Your task to perform on an android device: Check the settings for the Facebook app Image 0: 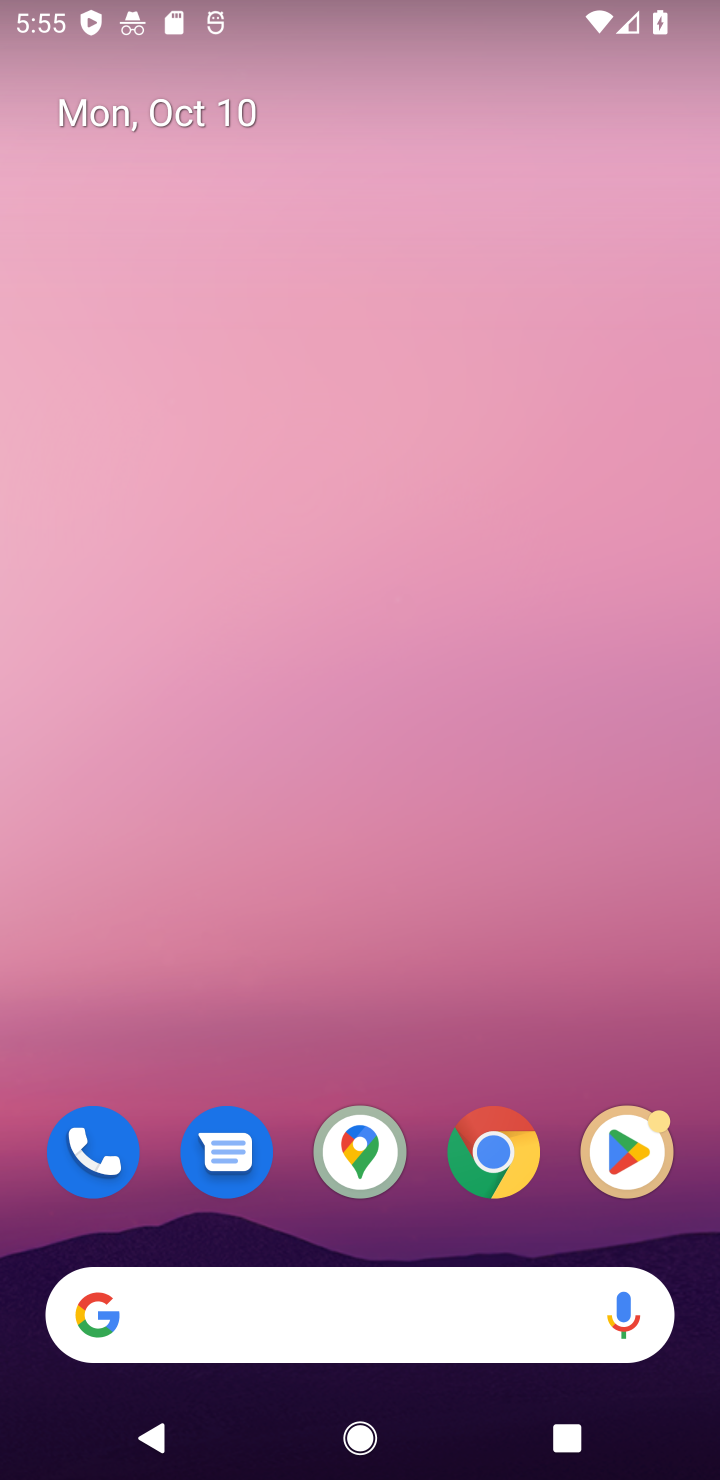
Step 0: click (624, 1152)
Your task to perform on an android device: Check the settings for the Facebook app Image 1: 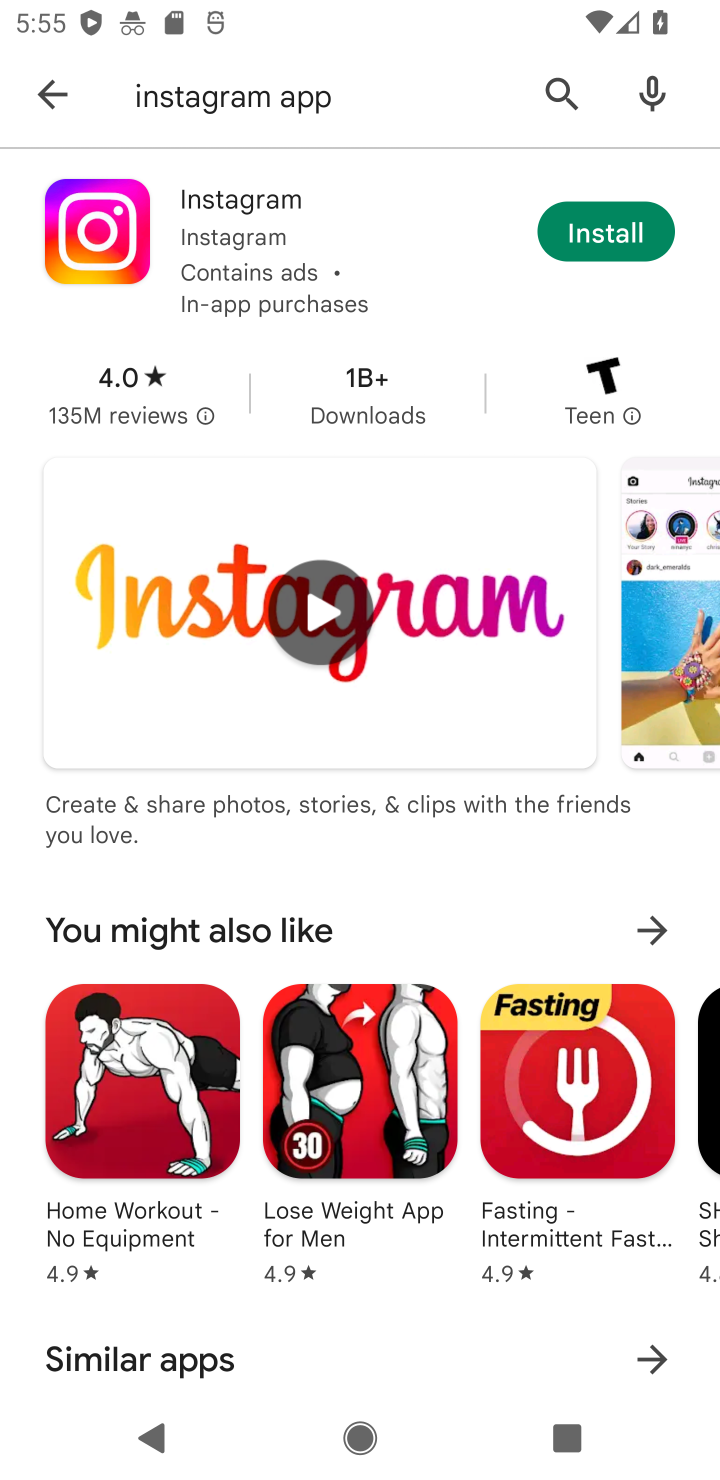
Step 1: click (568, 89)
Your task to perform on an android device: Check the settings for the Facebook app Image 2: 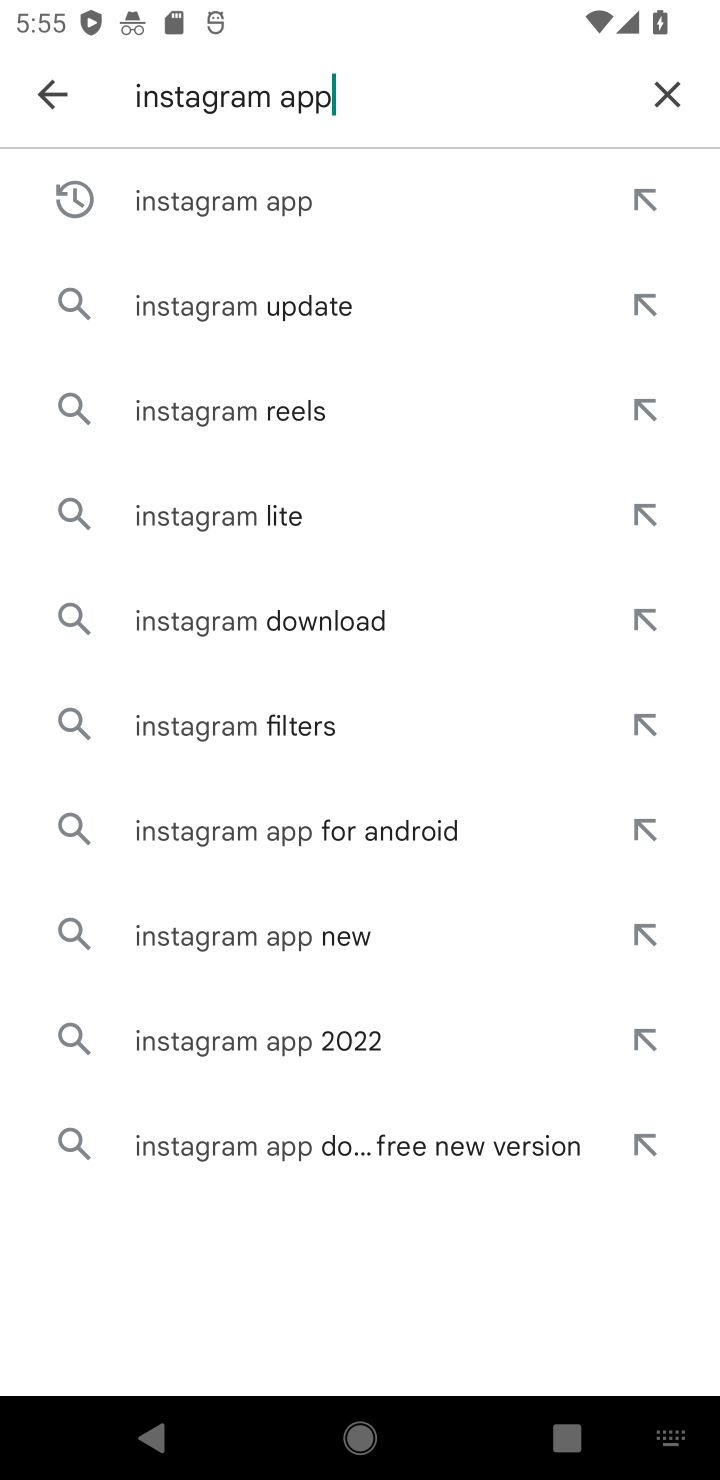
Step 2: click (672, 86)
Your task to perform on an android device: Check the settings for the Facebook app Image 3: 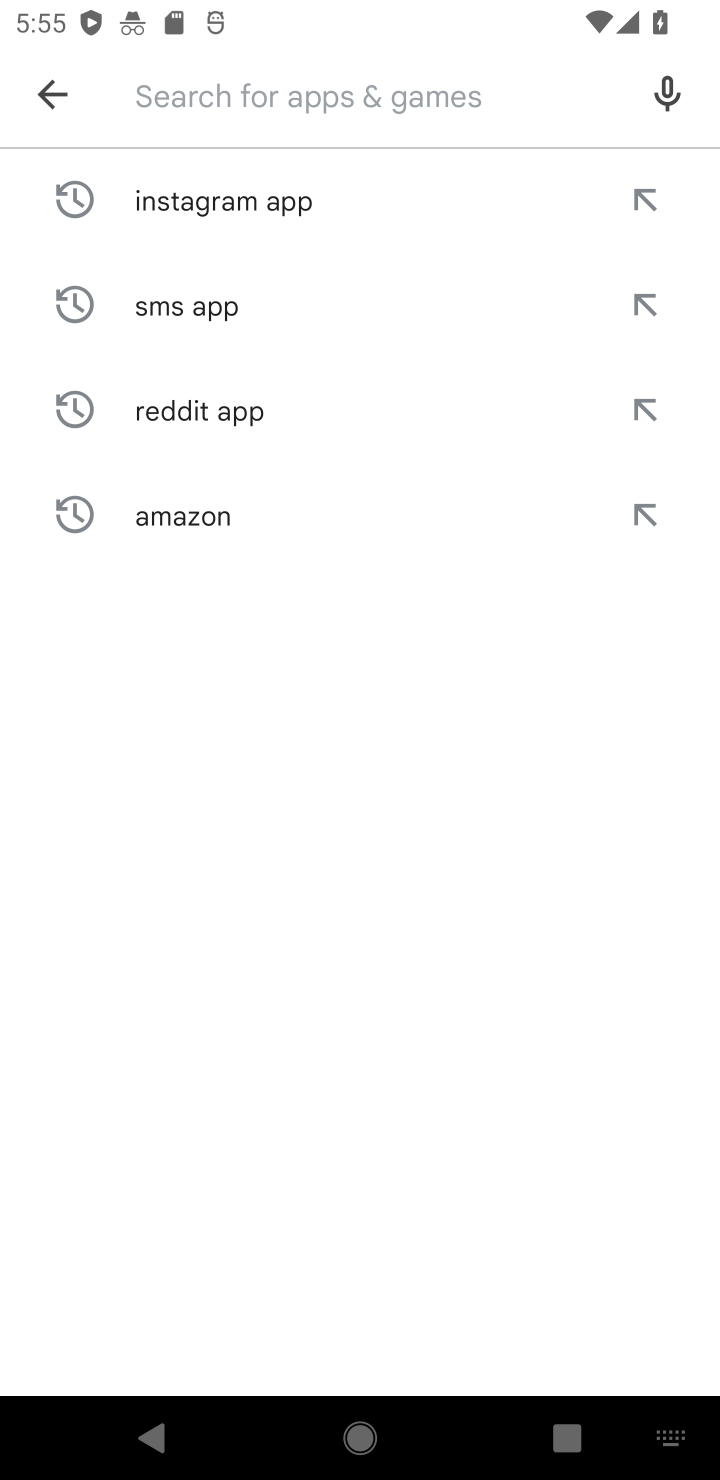
Step 3: type "Facebook app"
Your task to perform on an android device: Check the settings for the Facebook app Image 4: 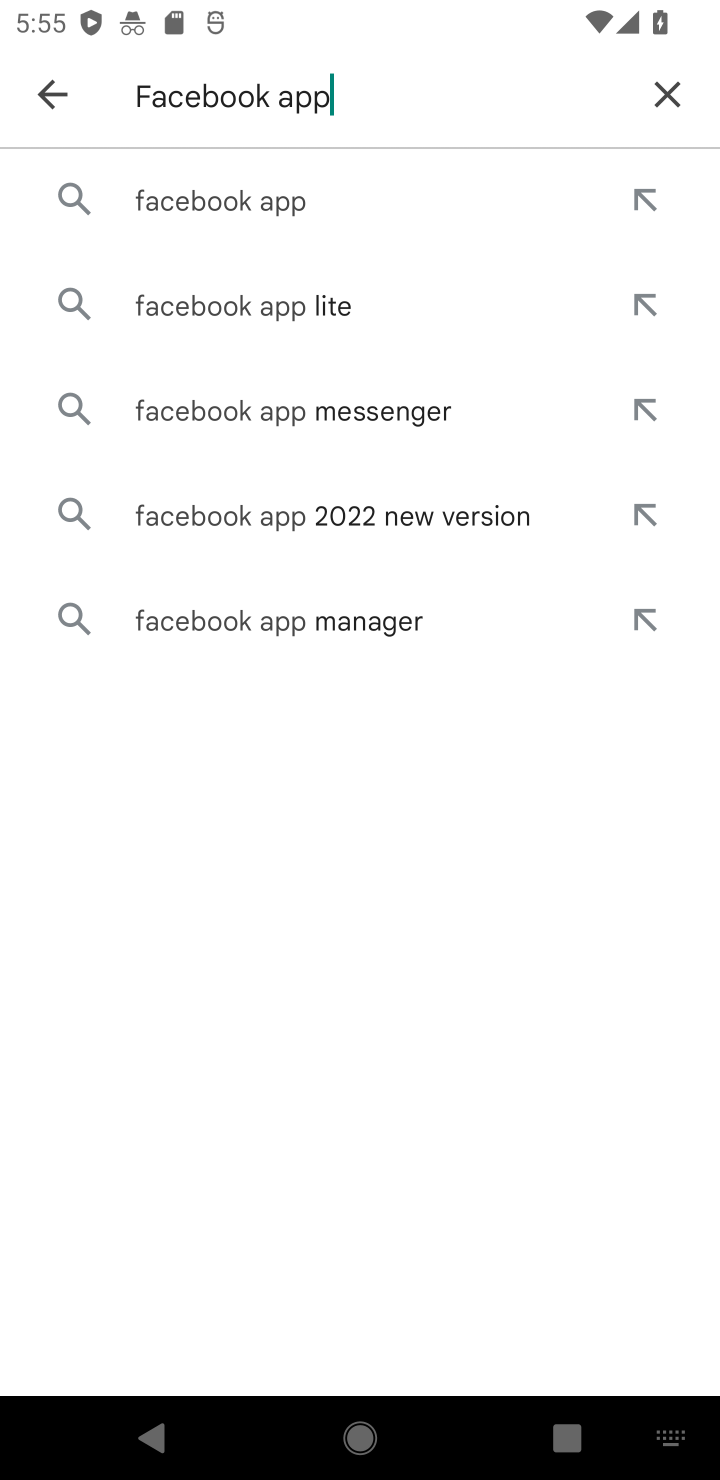
Step 4: click (294, 214)
Your task to perform on an android device: Check the settings for the Facebook app Image 5: 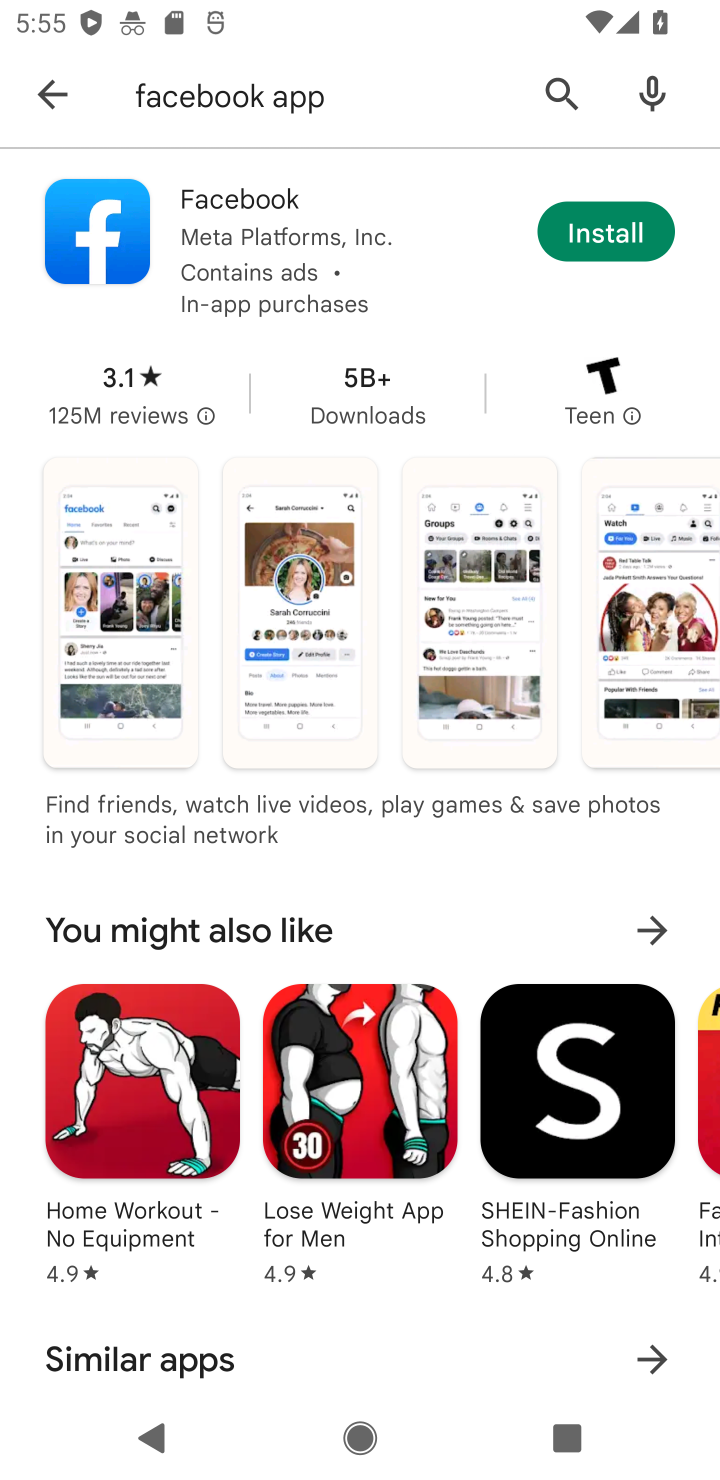
Step 5: task complete